Your task to perform on an android device: Open the calendar and show me this week's events? Image 0: 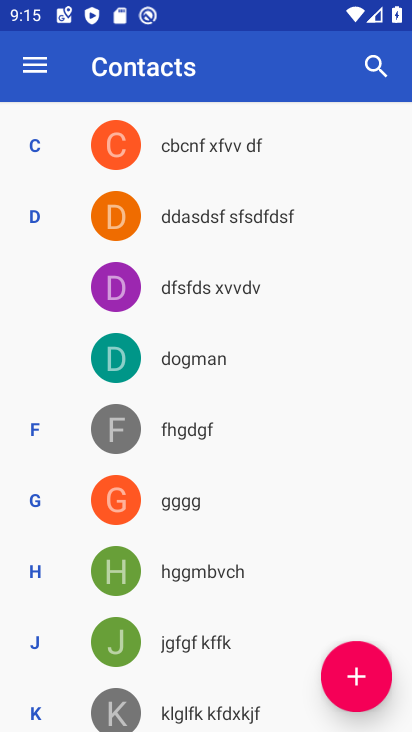
Step 0: press home button
Your task to perform on an android device: Open the calendar and show me this week's events? Image 1: 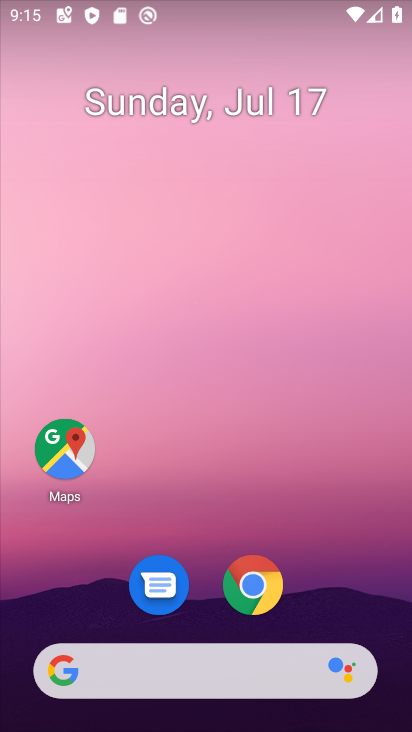
Step 1: drag from (249, 490) to (237, 0)
Your task to perform on an android device: Open the calendar and show me this week's events? Image 2: 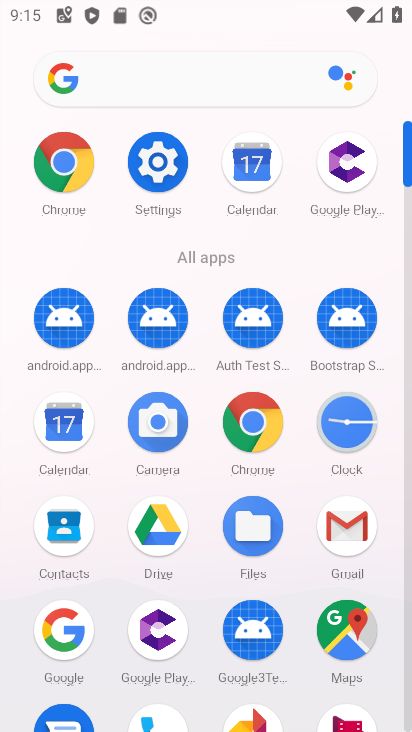
Step 2: click (250, 167)
Your task to perform on an android device: Open the calendar and show me this week's events? Image 3: 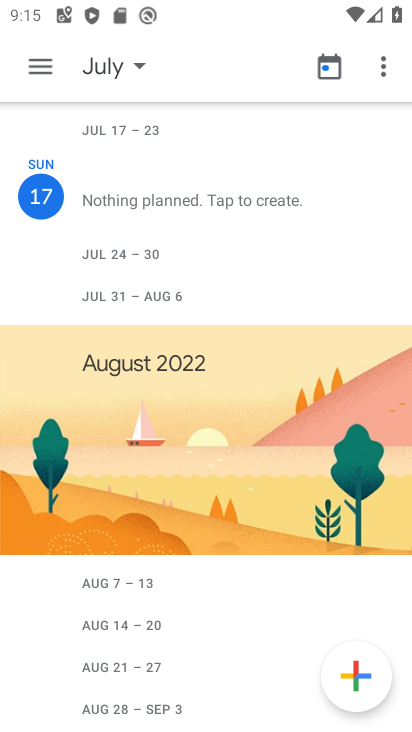
Step 3: click (40, 68)
Your task to perform on an android device: Open the calendar and show me this week's events? Image 4: 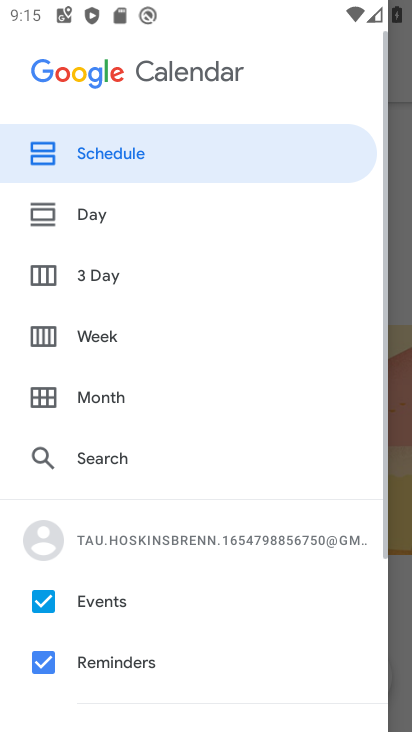
Step 4: click (45, 339)
Your task to perform on an android device: Open the calendar and show me this week's events? Image 5: 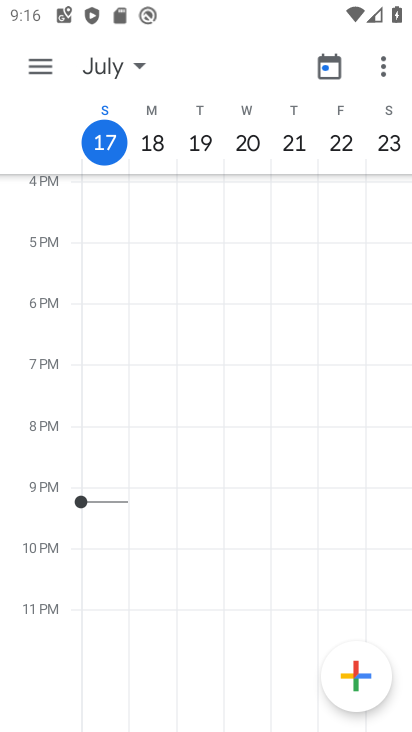
Step 5: task complete